Your task to perform on an android device: Open Google Chrome and open the bookmarks view Image 0: 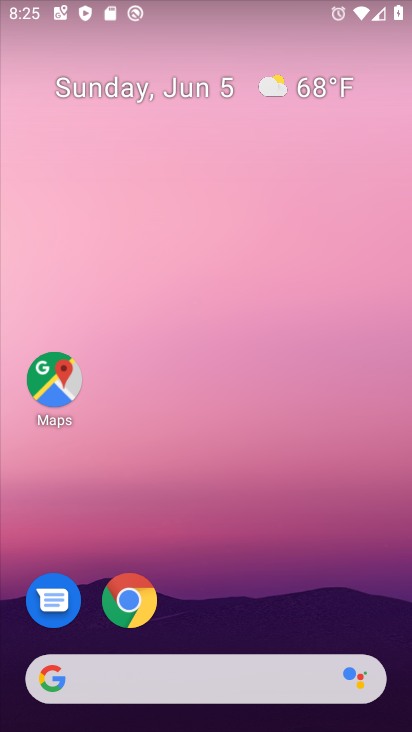
Step 0: drag from (403, 612) to (288, 40)
Your task to perform on an android device: Open Google Chrome and open the bookmarks view Image 1: 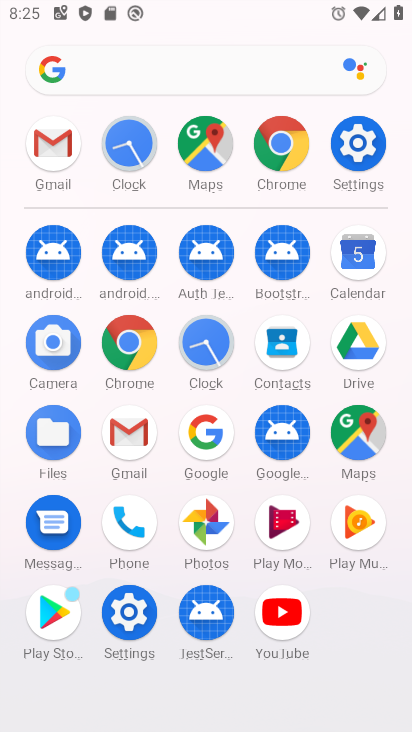
Step 1: click (289, 129)
Your task to perform on an android device: Open Google Chrome and open the bookmarks view Image 2: 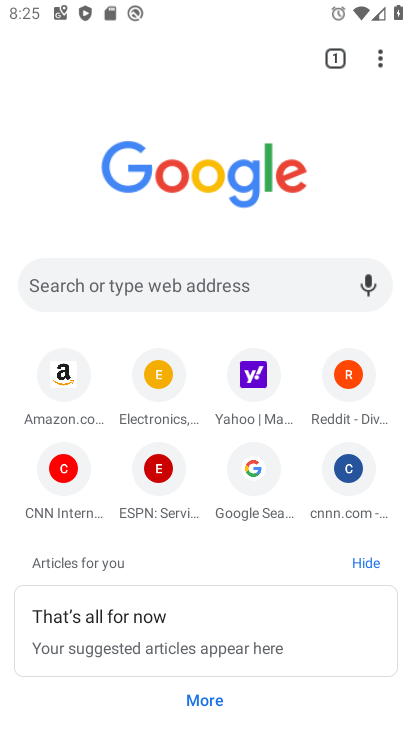
Step 2: click (378, 54)
Your task to perform on an android device: Open Google Chrome and open the bookmarks view Image 3: 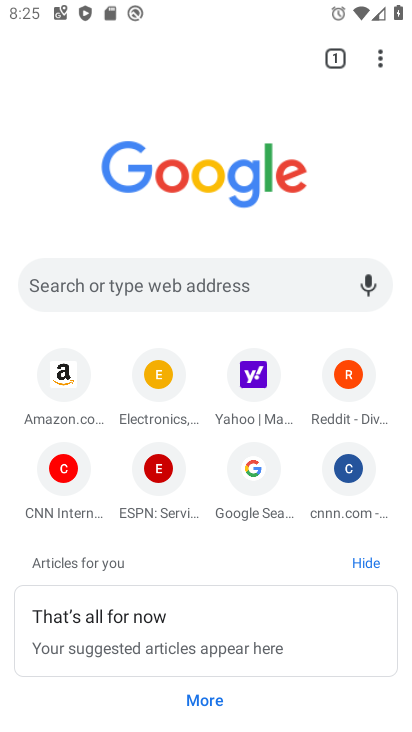
Step 3: click (382, 54)
Your task to perform on an android device: Open Google Chrome and open the bookmarks view Image 4: 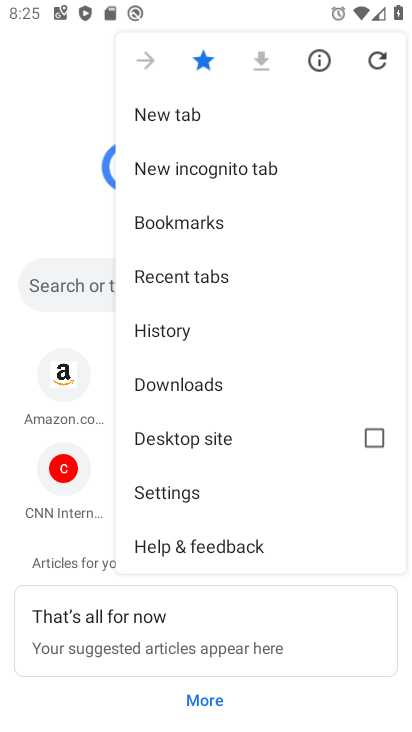
Step 4: click (221, 213)
Your task to perform on an android device: Open Google Chrome and open the bookmarks view Image 5: 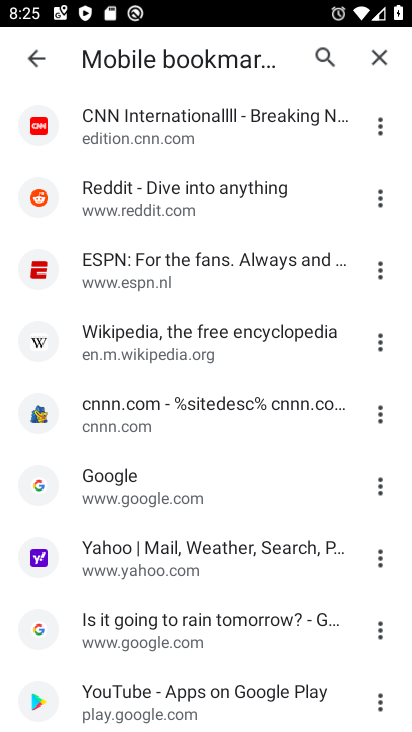
Step 5: task complete